Your task to perform on an android device: Add razer blackwidow to the cart on amazon.com Image 0: 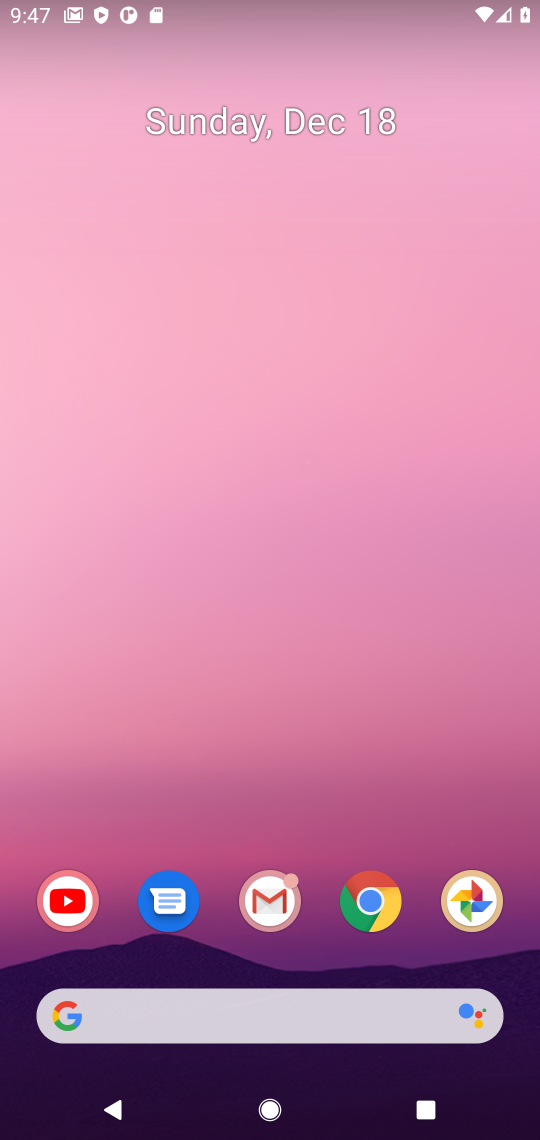
Step 0: click (365, 886)
Your task to perform on an android device: Add razer blackwidow to the cart on amazon.com Image 1: 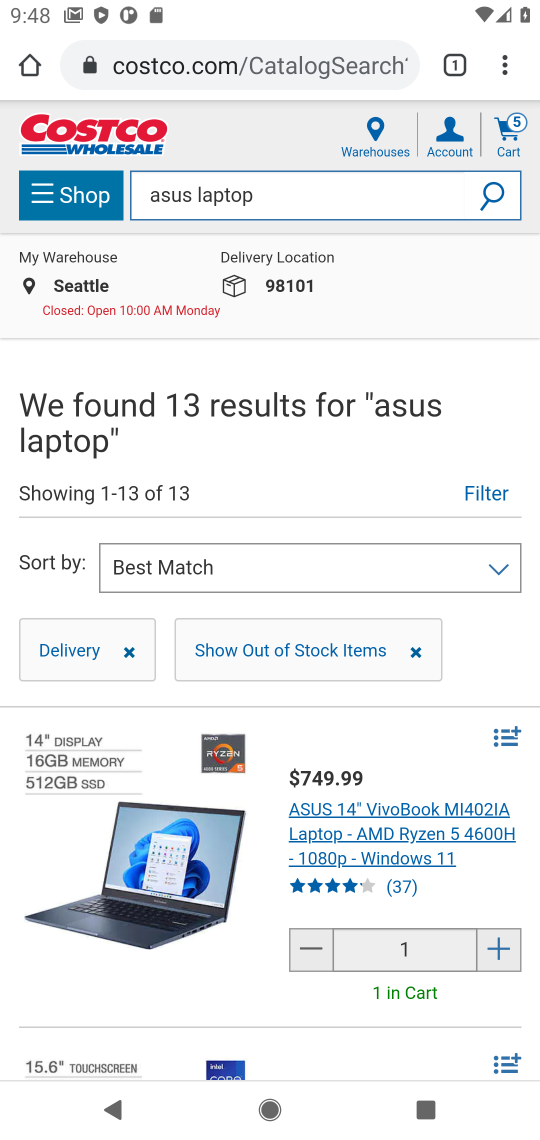
Step 1: click (216, 73)
Your task to perform on an android device: Add razer blackwidow to the cart on amazon.com Image 2: 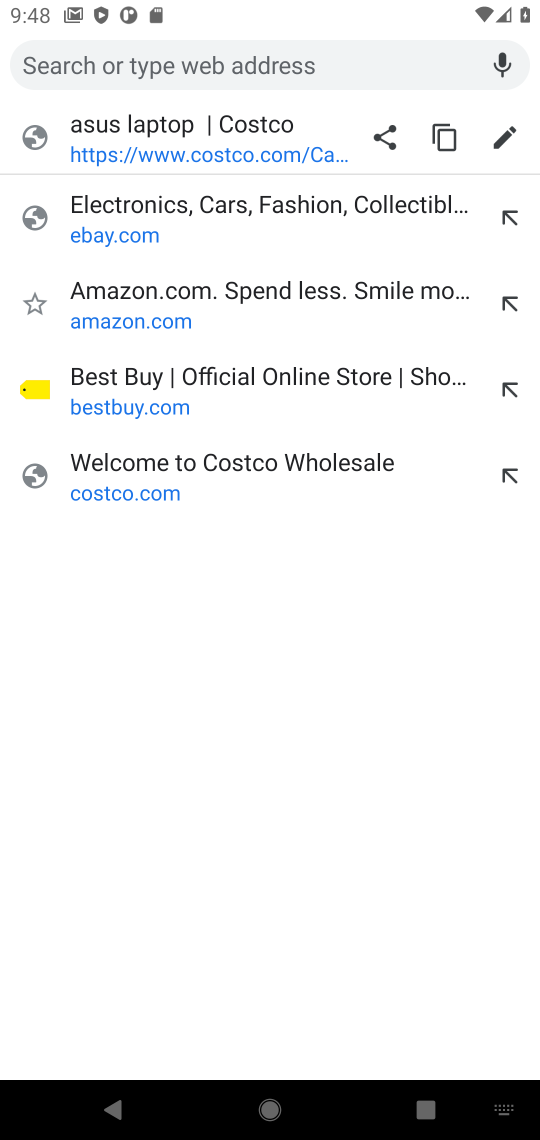
Step 2: type "amazon"
Your task to perform on an android device: Add razer blackwidow to the cart on amazon.com Image 3: 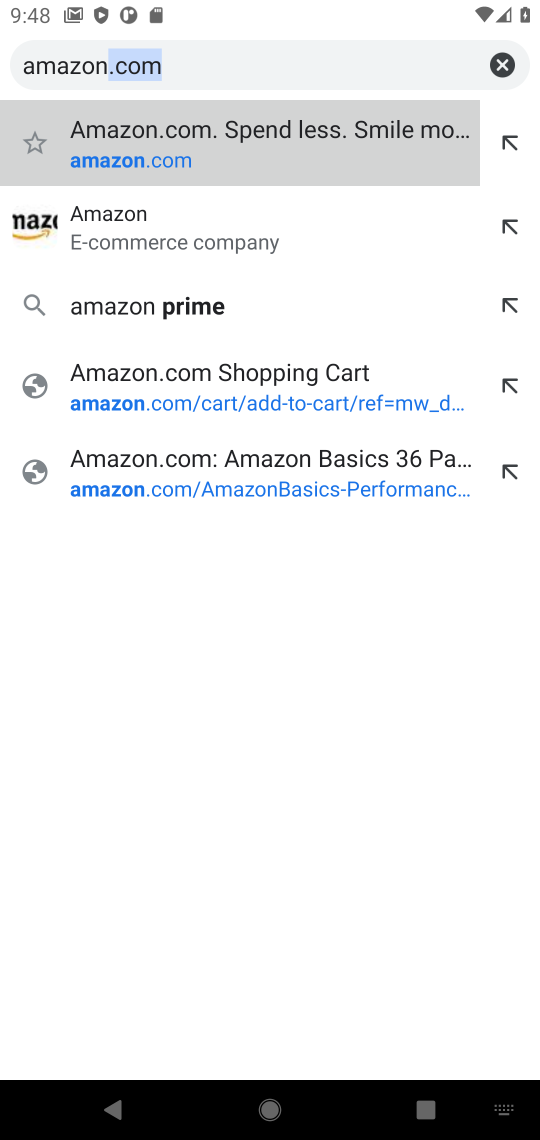
Step 3: click (220, 127)
Your task to perform on an android device: Add razer blackwidow to the cart on amazon.com Image 4: 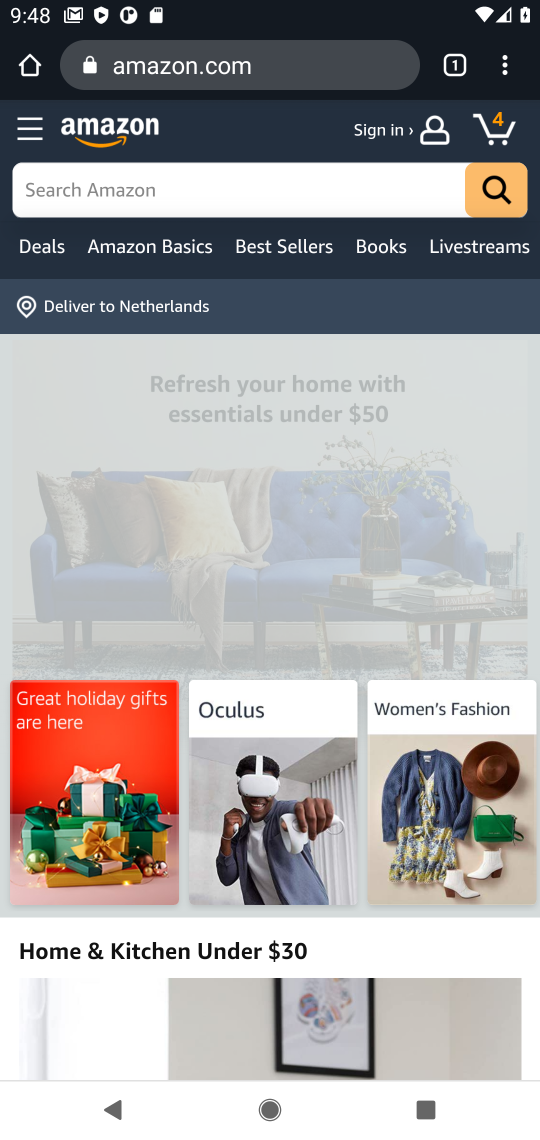
Step 4: click (152, 173)
Your task to perform on an android device: Add razer blackwidow to the cart on amazon.com Image 5: 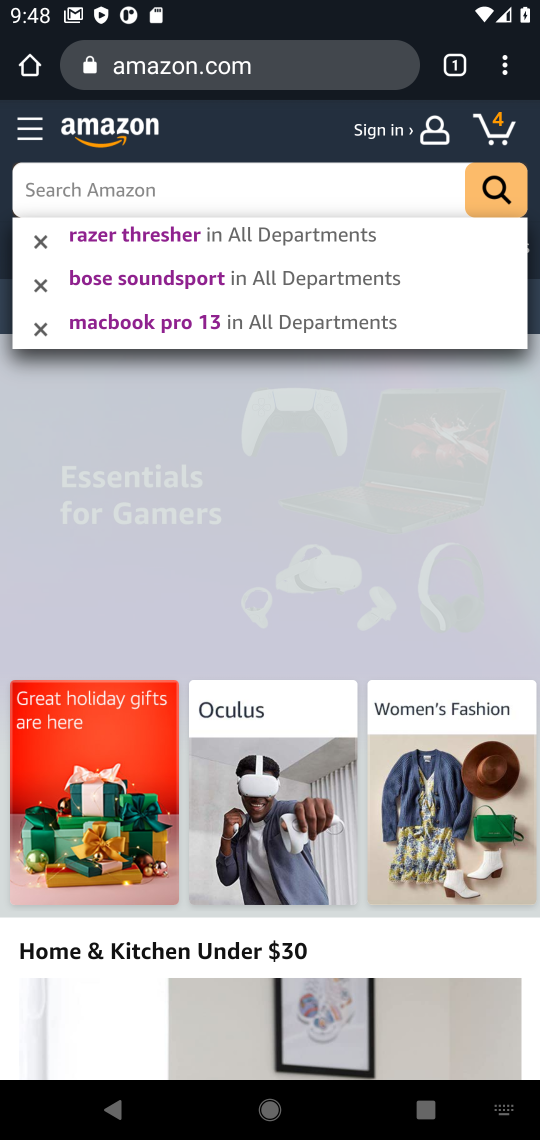
Step 5: type "razer blackwidow"
Your task to perform on an android device: Add razer blackwidow to the cart on amazon.com Image 6: 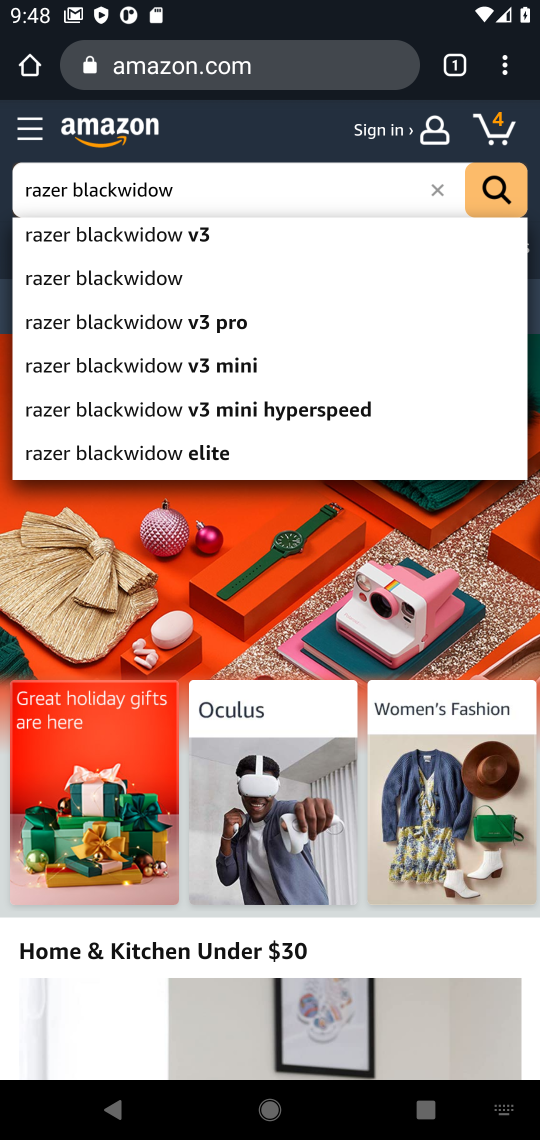
Step 6: click (477, 204)
Your task to perform on an android device: Add razer blackwidow to the cart on amazon.com Image 7: 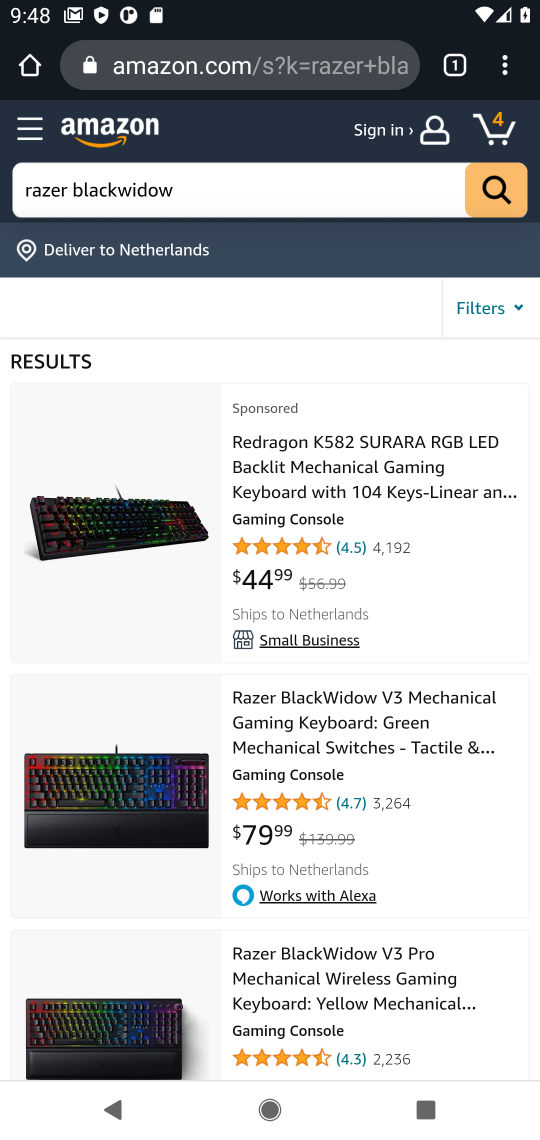
Step 7: click (401, 478)
Your task to perform on an android device: Add razer blackwidow to the cart on amazon.com Image 8: 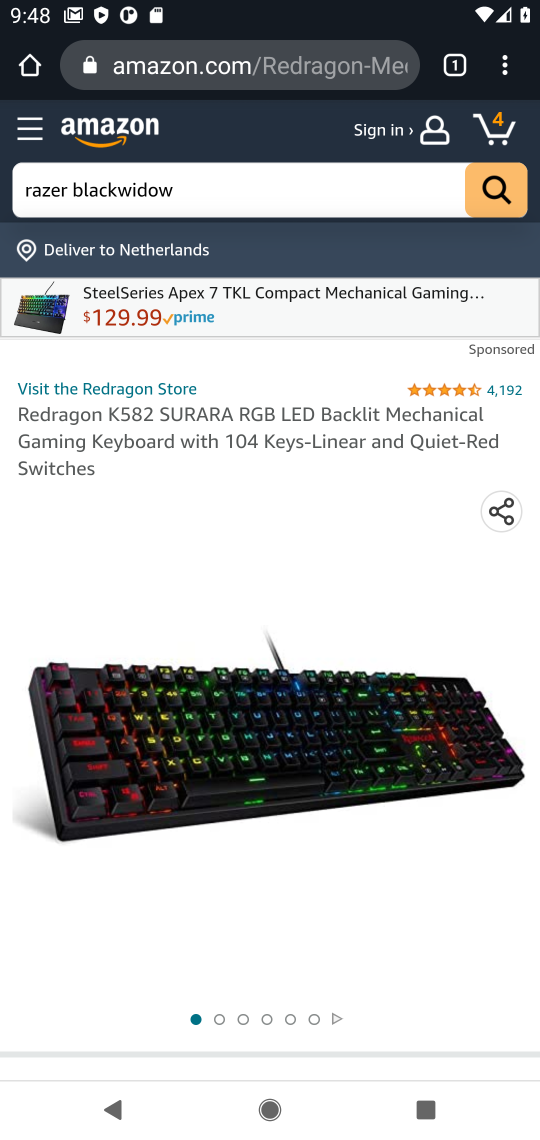
Step 8: drag from (328, 798) to (403, 226)
Your task to perform on an android device: Add razer blackwidow to the cart on amazon.com Image 9: 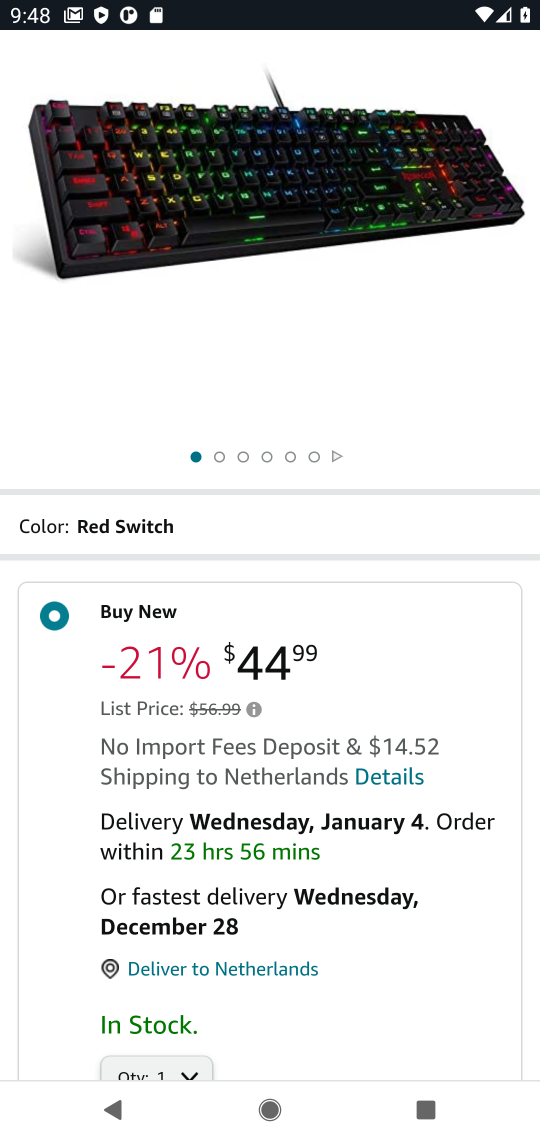
Step 9: drag from (375, 925) to (373, 284)
Your task to perform on an android device: Add razer blackwidow to the cart on amazon.com Image 10: 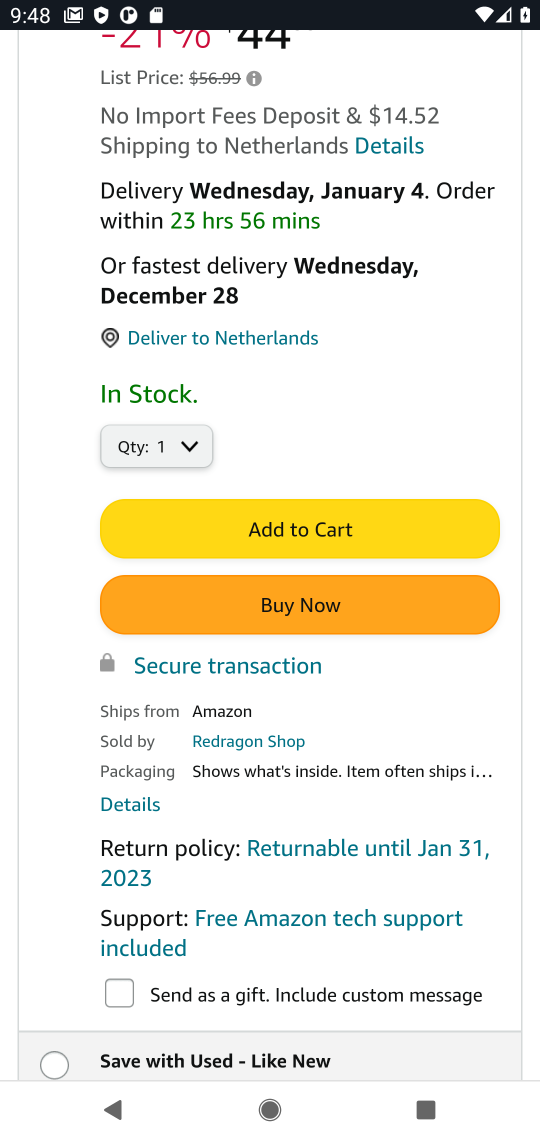
Step 10: click (323, 545)
Your task to perform on an android device: Add razer blackwidow to the cart on amazon.com Image 11: 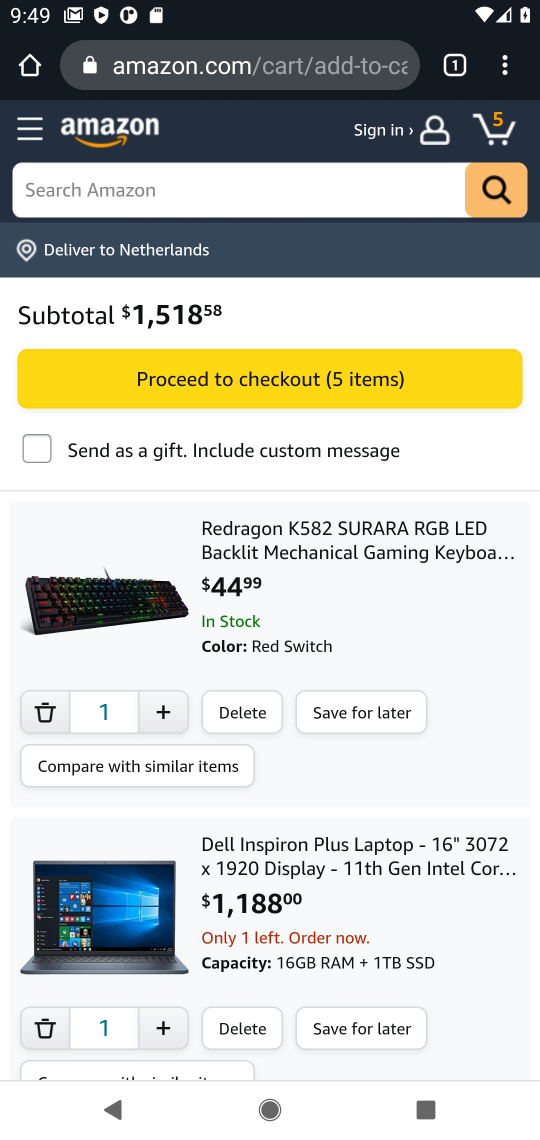
Step 11: task complete